Your task to perform on an android device: turn vacation reply on in the gmail app Image 0: 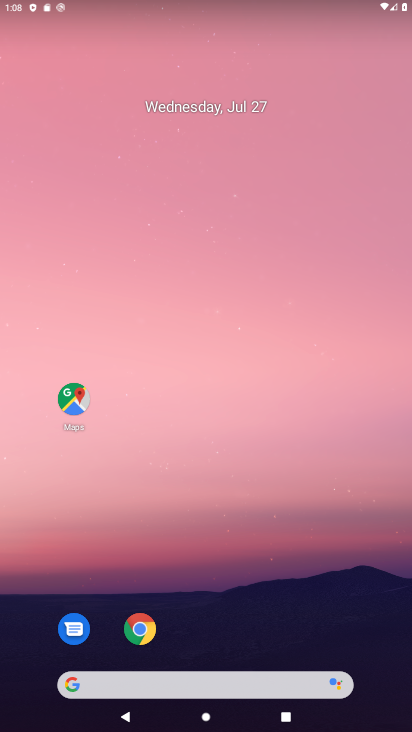
Step 0: press home button
Your task to perform on an android device: turn vacation reply on in the gmail app Image 1: 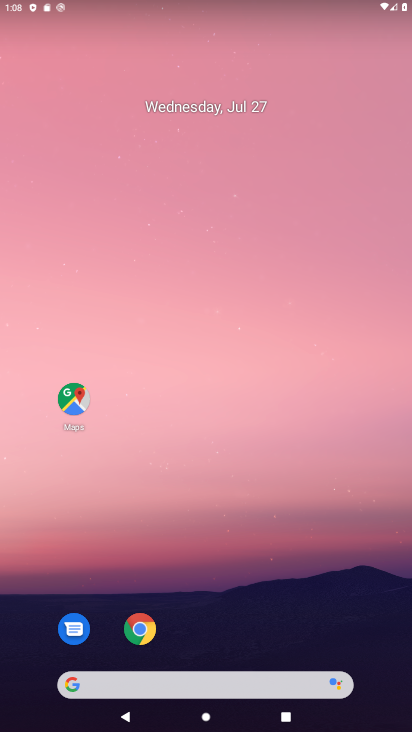
Step 1: drag from (248, 594) to (223, 74)
Your task to perform on an android device: turn vacation reply on in the gmail app Image 2: 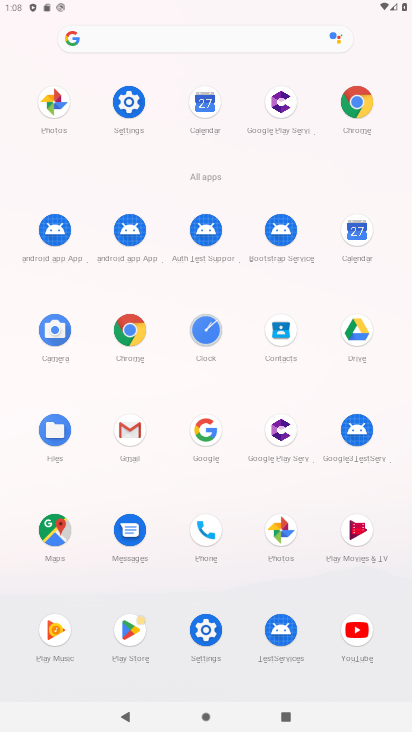
Step 2: click (131, 427)
Your task to perform on an android device: turn vacation reply on in the gmail app Image 3: 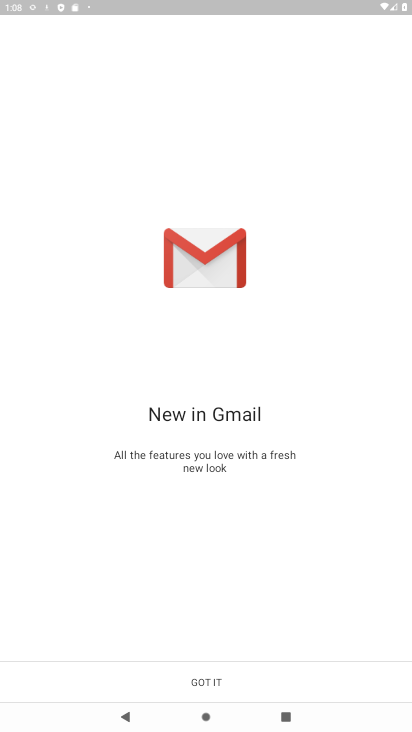
Step 3: click (207, 680)
Your task to perform on an android device: turn vacation reply on in the gmail app Image 4: 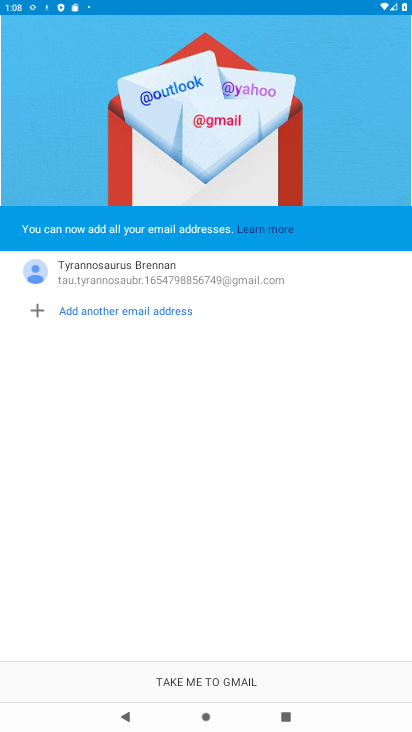
Step 4: click (210, 684)
Your task to perform on an android device: turn vacation reply on in the gmail app Image 5: 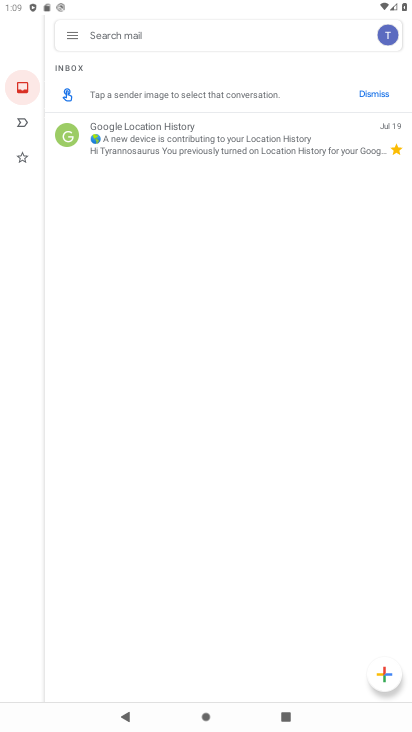
Step 5: click (74, 38)
Your task to perform on an android device: turn vacation reply on in the gmail app Image 6: 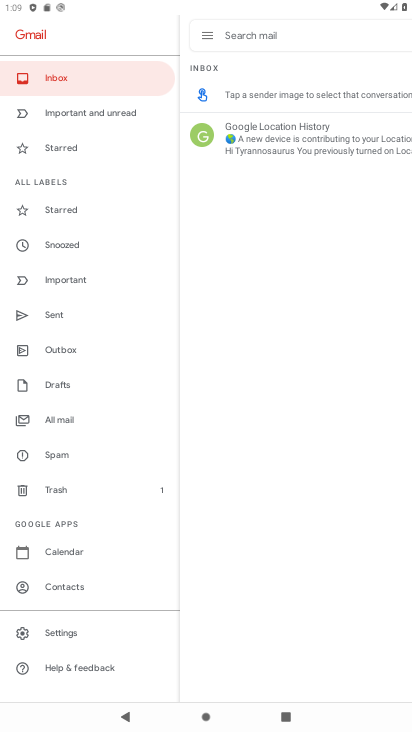
Step 6: click (62, 632)
Your task to perform on an android device: turn vacation reply on in the gmail app Image 7: 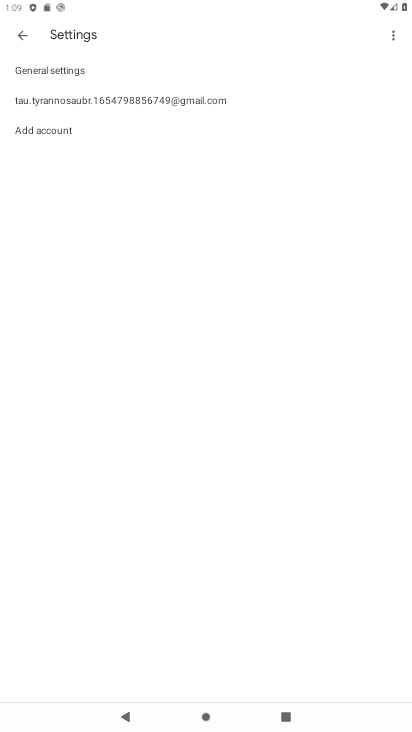
Step 7: click (113, 96)
Your task to perform on an android device: turn vacation reply on in the gmail app Image 8: 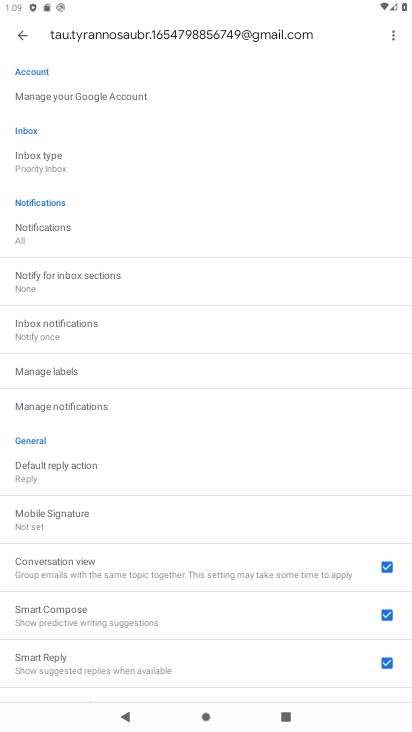
Step 8: drag from (215, 528) to (263, 57)
Your task to perform on an android device: turn vacation reply on in the gmail app Image 9: 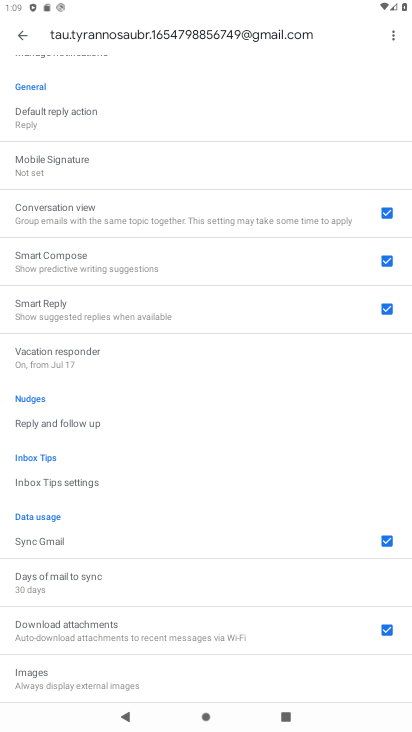
Step 9: click (48, 347)
Your task to perform on an android device: turn vacation reply on in the gmail app Image 10: 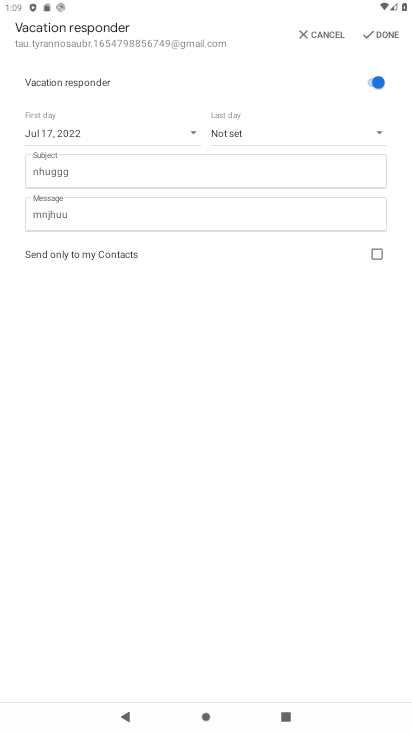
Step 10: task complete